Your task to perform on an android device: Open Google Maps Image 0: 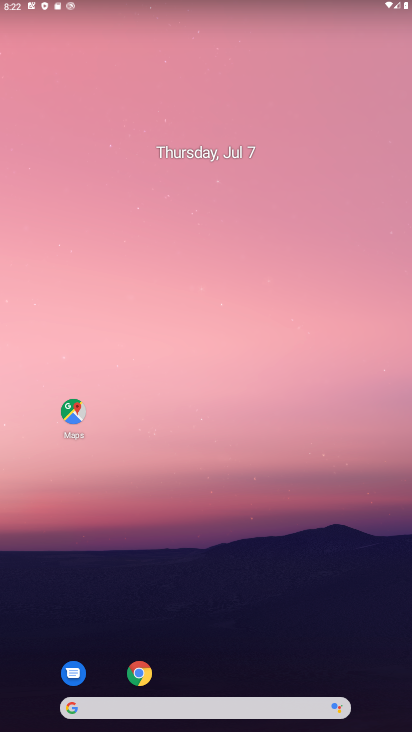
Step 0: press home button
Your task to perform on an android device: Open Google Maps Image 1: 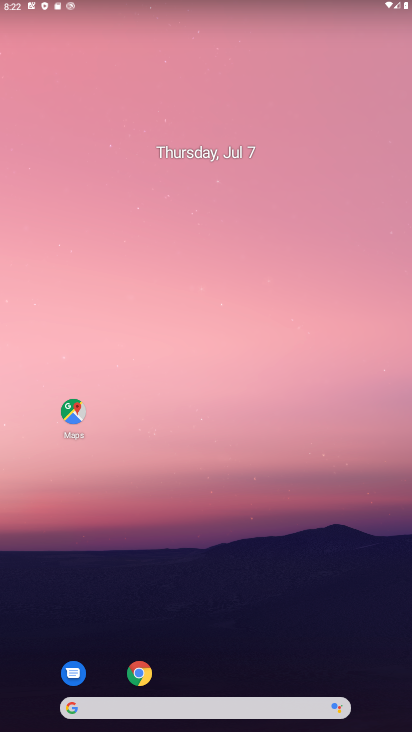
Step 1: drag from (238, 609) to (213, 12)
Your task to perform on an android device: Open Google Maps Image 2: 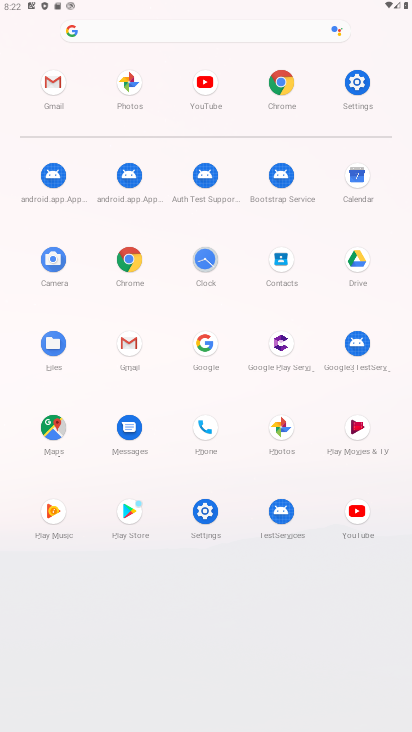
Step 2: click (47, 432)
Your task to perform on an android device: Open Google Maps Image 3: 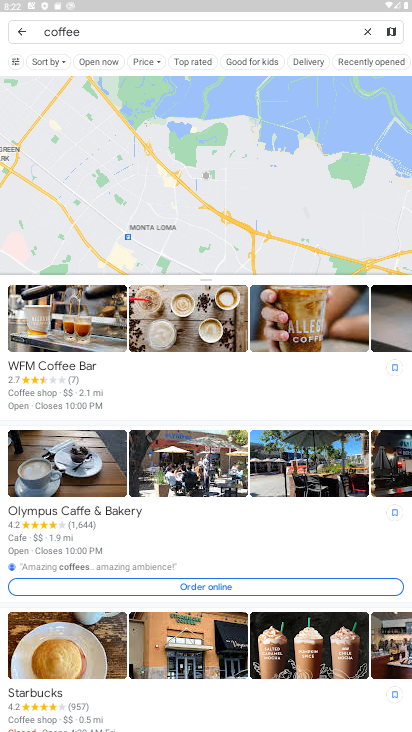
Step 3: click (365, 34)
Your task to perform on an android device: Open Google Maps Image 4: 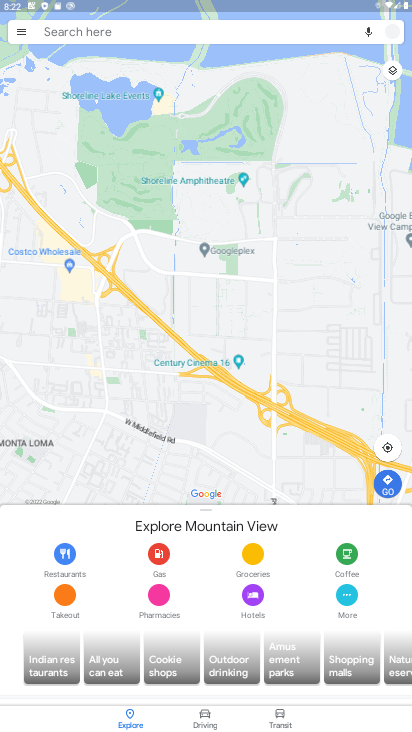
Step 4: task complete